Your task to perform on an android device: turn off location Image 0: 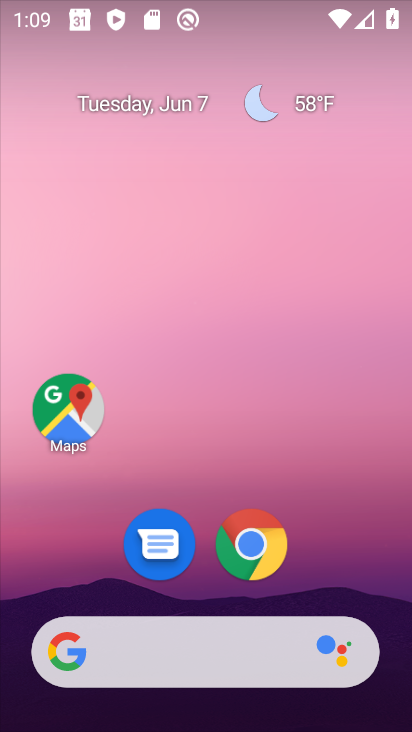
Step 0: drag from (149, 671) to (379, 112)
Your task to perform on an android device: turn off location Image 1: 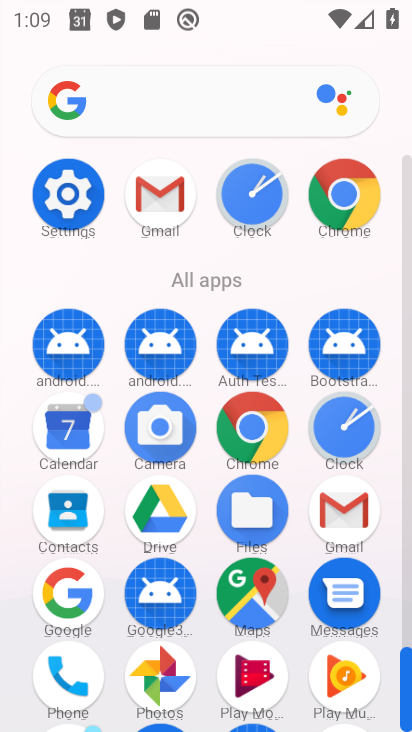
Step 1: click (34, 222)
Your task to perform on an android device: turn off location Image 2: 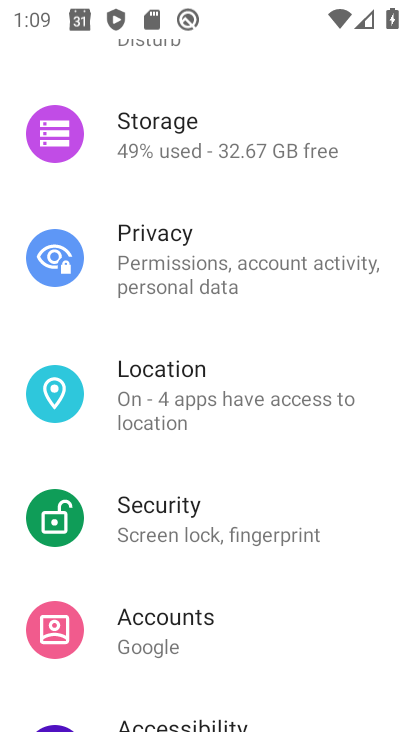
Step 2: click (206, 421)
Your task to perform on an android device: turn off location Image 3: 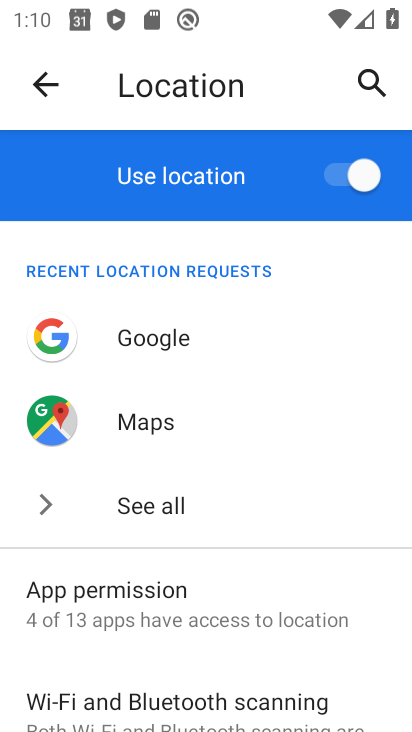
Step 3: click (344, 173)
Your task to perform on an android device: turn off location Image 4: 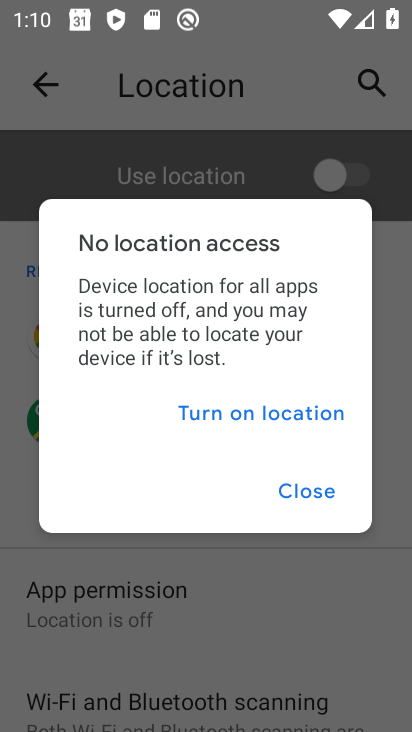
Step 4: click (298, 500)
Your task to perform on an android device: turn off location Image 5: 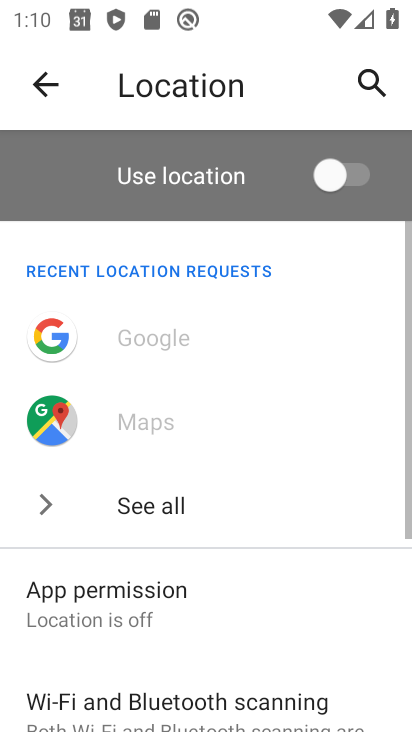
Step 5: task complete